Your task to perform on an android device: check android version Image 0: 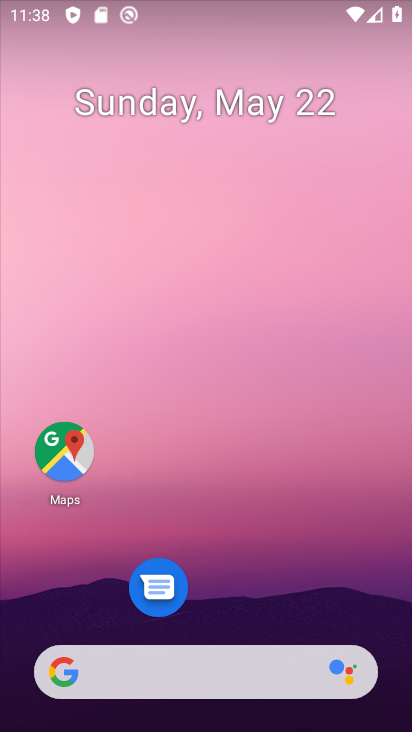
Step 0: drag from (209, 641) to (256, 1)
Your task to perform on an android device: check android version Image 1: 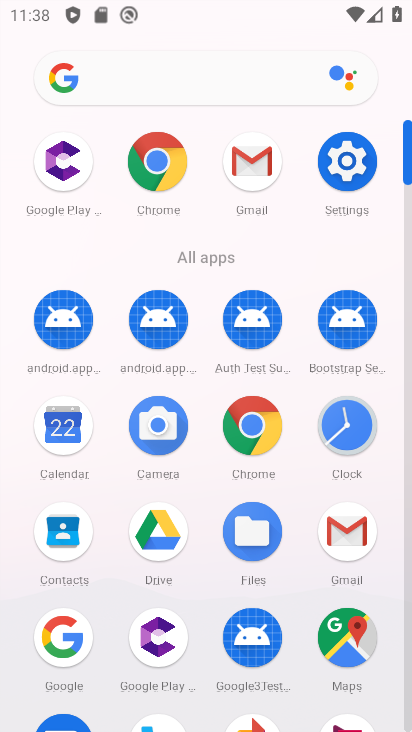
Step 1: click (343, 174)
Your task to perform on an android device: check android version Image 2: 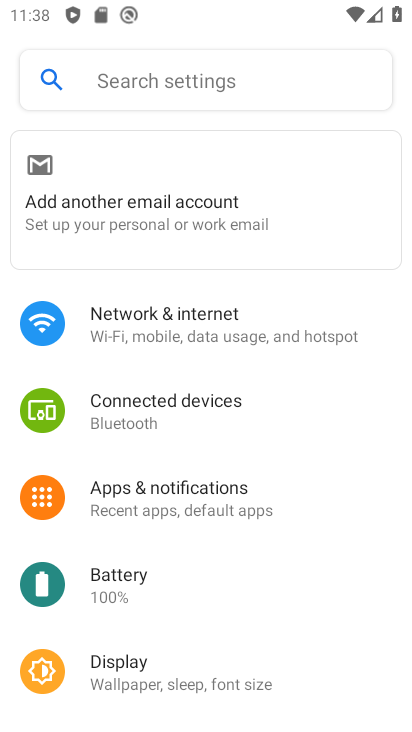
Step 2: drag from (275, 606) to (278, 32)
Your task to perform on an android device: check android version Image 3: 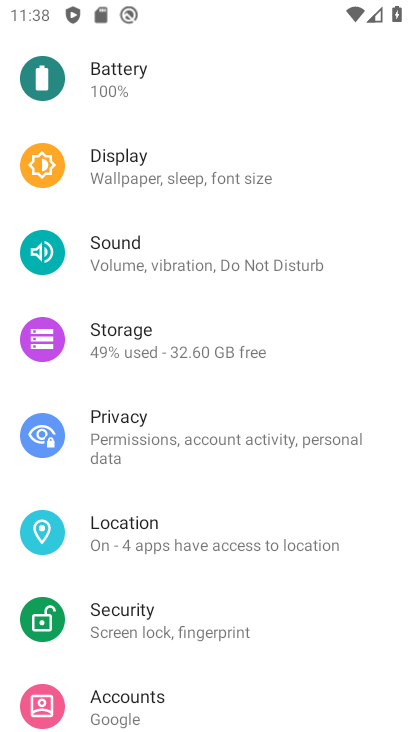
Step 3: drag from (87, 614) to (84, 93)
Your task to perform on an android device: check android version Image 4: 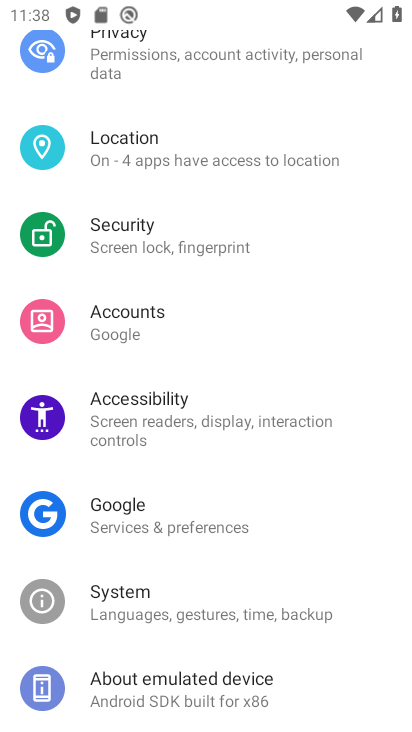
Step 4: click (142, 687)
Your task to perform on an android device: check android version Image 5: 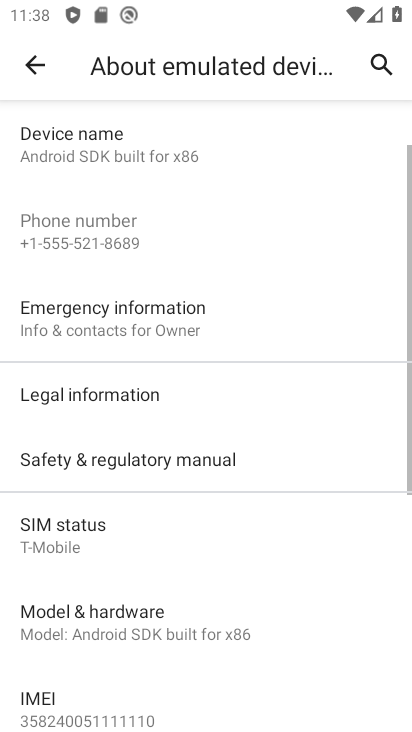
Step 5: drag from (114, 526) to (114, 151)
Your task to perform on an android device: check android version Image 6: 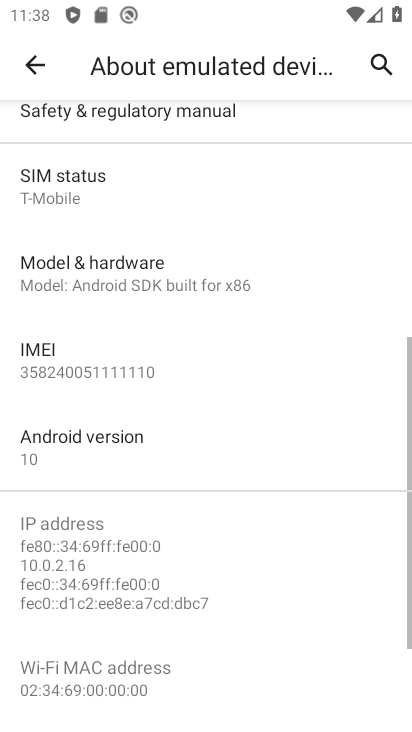
Step 6: click (129, 430)
Your task to perform on an android device: check android version Image 7: 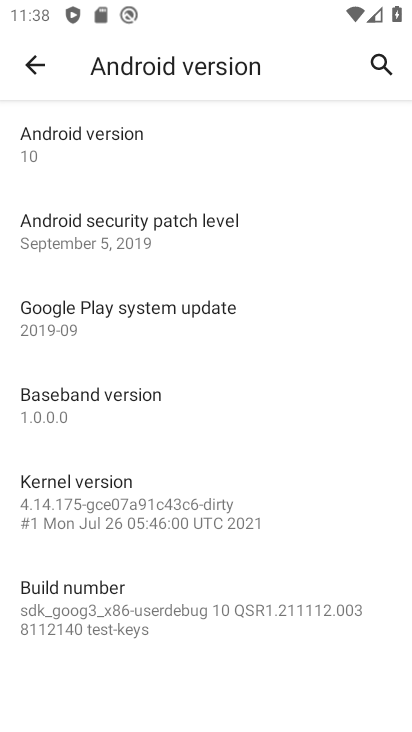
Step 7: task complete